Your task to perform on an android device: Open Android settings Image 0: 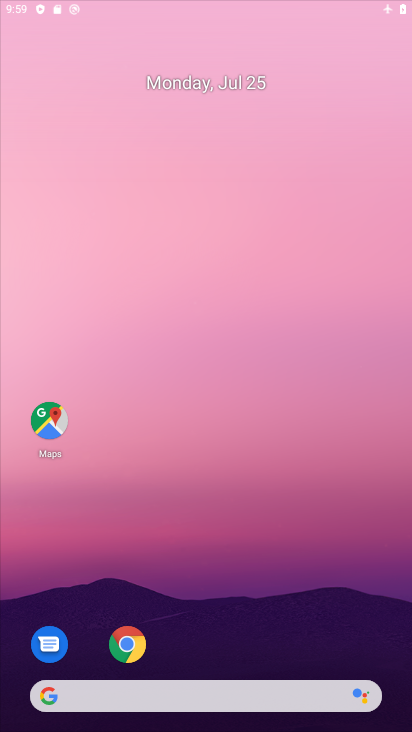
Step 0: drag from (265, 624) to (258, 110)
Your task to perform on an android device: Open Android settings Image 1: 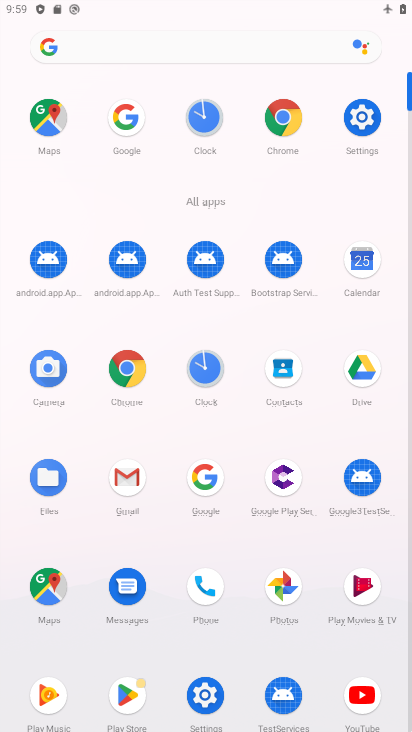
Step 1: click (124, 370)
Your task to perform on an android device: Open Android settings Image 2: 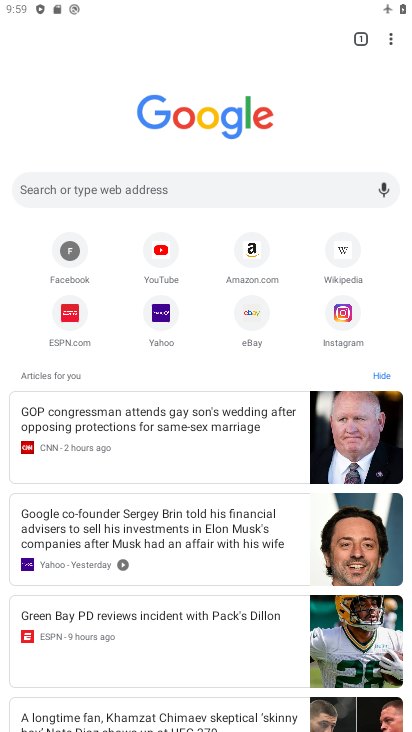
Step 2: press home button
Your task to perform on an android device: Open Android settings Image 3: 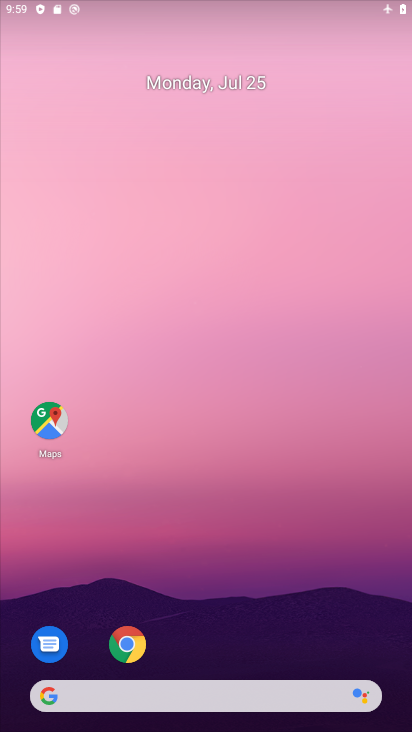
Step 3: drag from (206, 637) to (287, 41)
Your task to perform on an android device: Open Android settings Image 4: 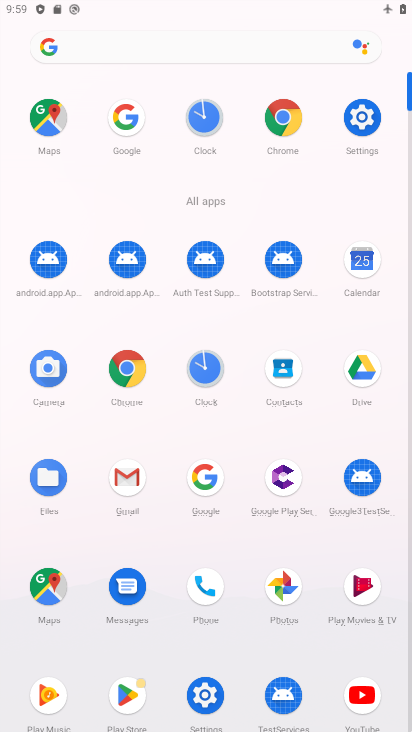
Step 4: click (219, 693)
Your task to perform on an android device: Open Android settings Image 5: 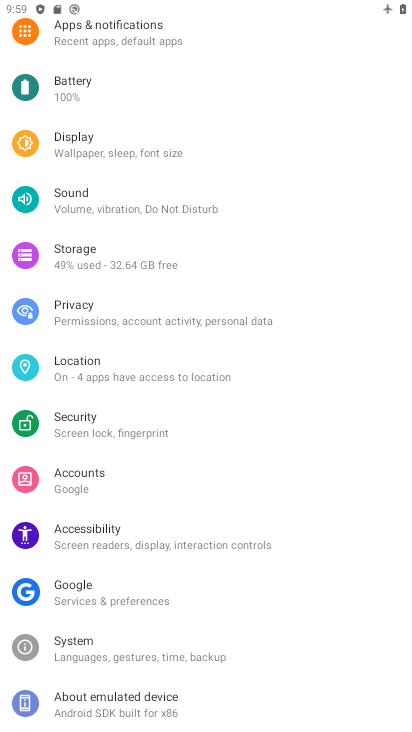
Step 5: click (117, 701)
Your task to perform on an android device: Open Android settings Image 6: 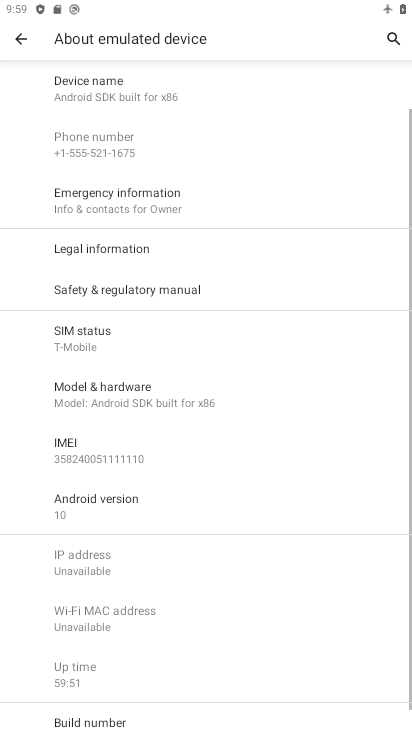
Step 6: drag from (239, 709) to (254, 398)
Your task to perform on an android device: Open Android settings Image 7: 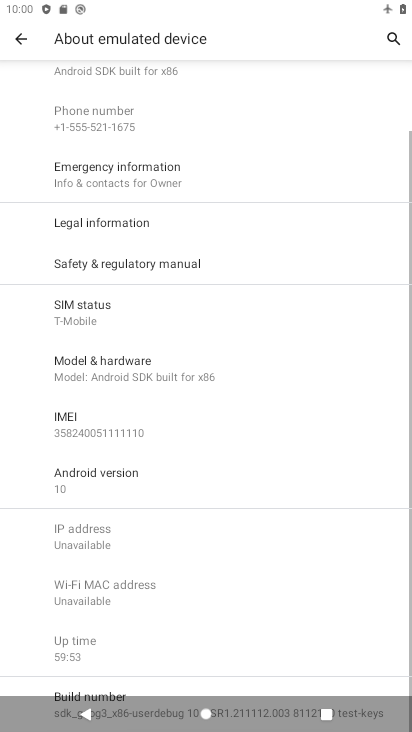
Step 7: click (82, 479)
Your task to perform on an android device: Open Android settings Image 8: 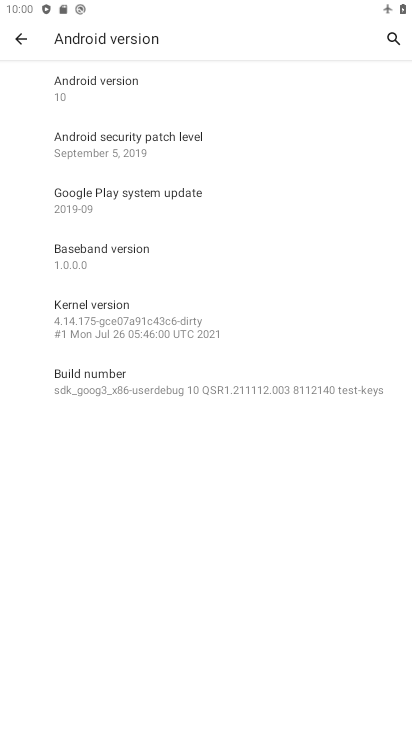
Step 8: task complete